Your task to perform on an android device: change timer sound Image 0: 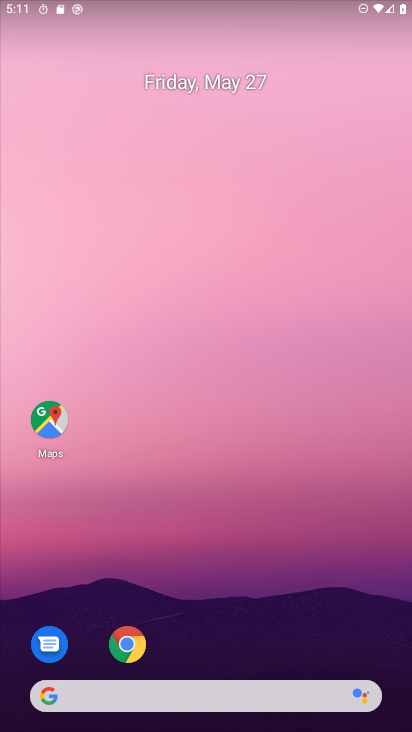
Step 0: drag from (171, 670) to (156, 102)
Your task to perform on an android device: change timer sound Image 1: 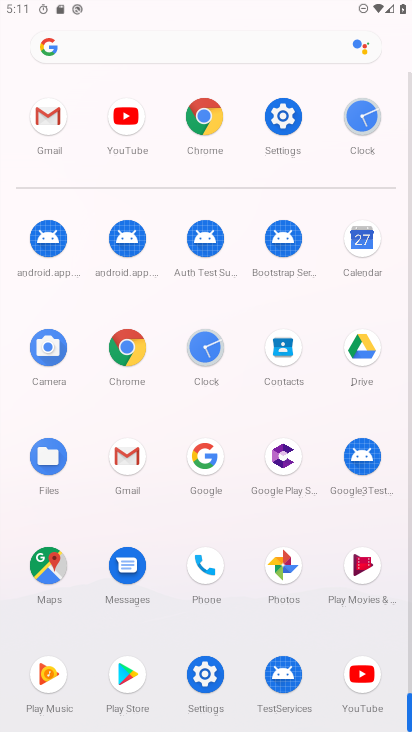
Step 1: click (360, 124)
Your task to perform on an android device: change timer sound Image 2: 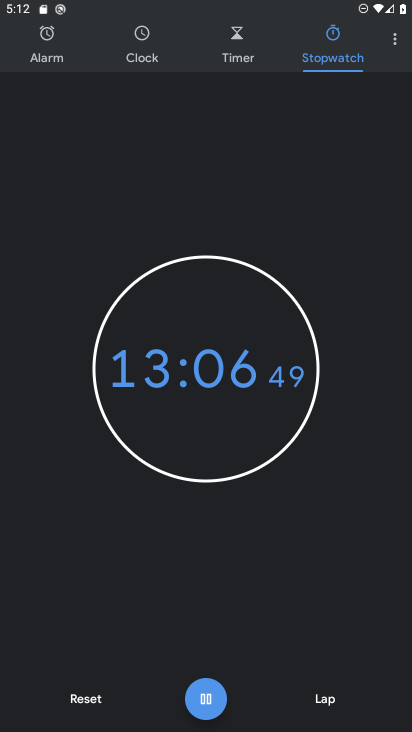
Step 2: click (399, 35)
Your task to perform on an android device: change timer sound Image 3: 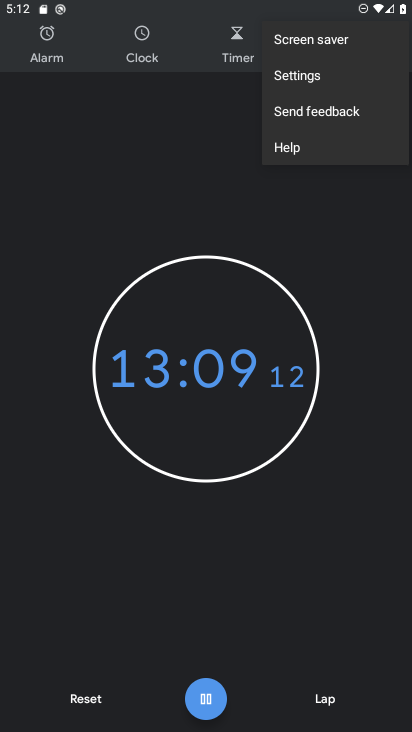
Step 3: click (342, 91)
Your task to perform on an android device: change timer sound Image 4: 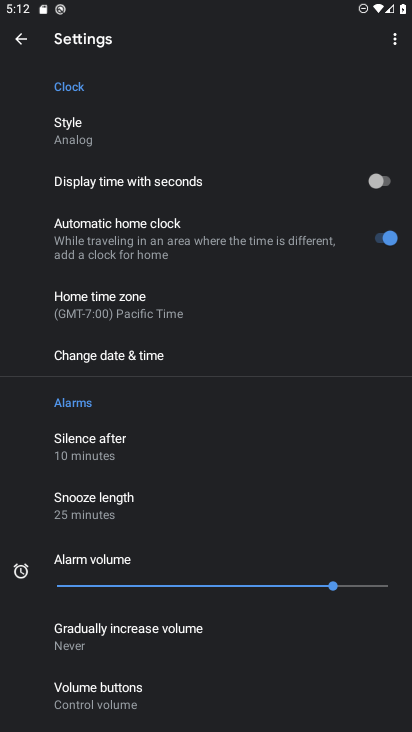
Step 4: drag from (133, 671) to (136, 203)
Your task to perform on an android device: change timer sound Image 5: 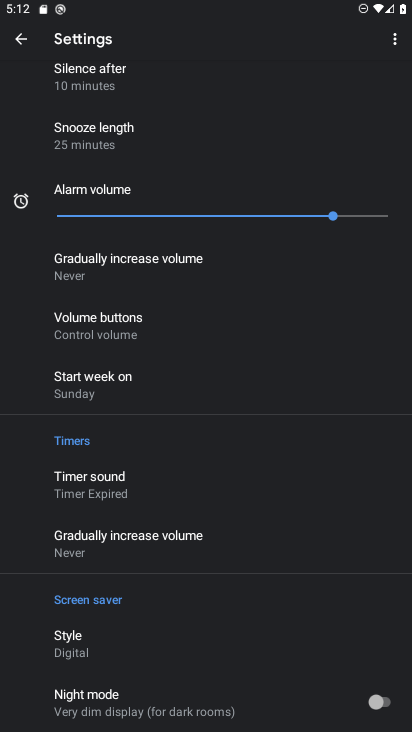
Step 5: click (109, 476)
Your task to perform on an android device: change timer sound Image 6: 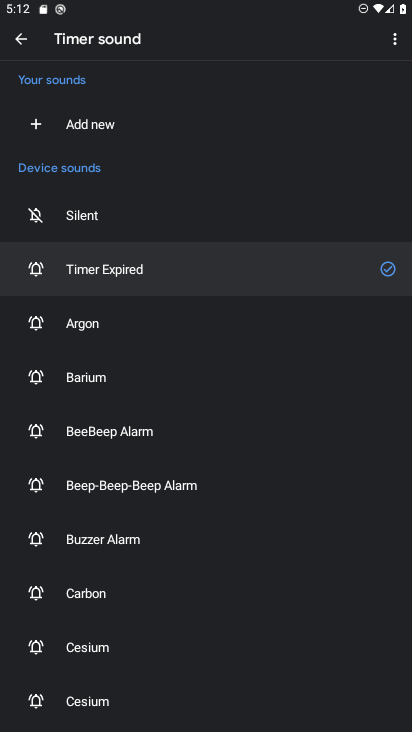
Step 6: click (84, 702)
Your task to perform on an android device: change timer sound Image 7: 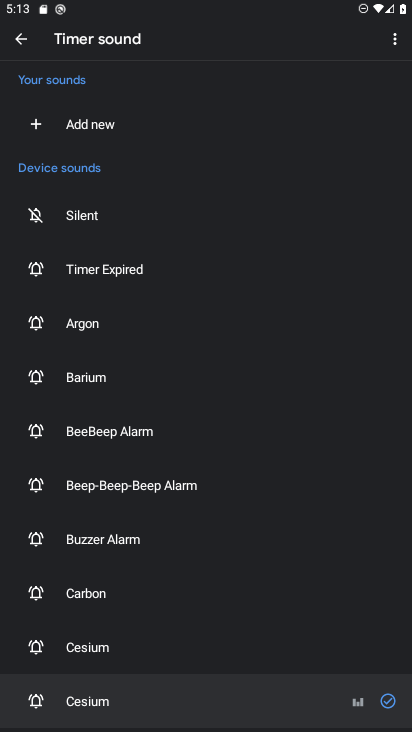
Step 7: task complete